Your task to perform on an android device: Find coffee shops on Maps Image 0: 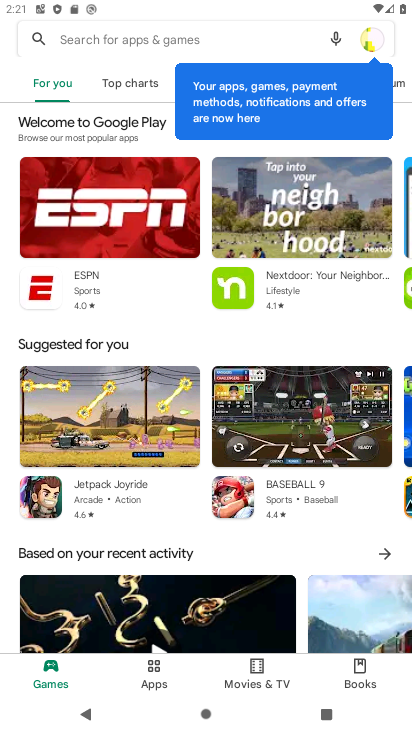
Step 0: press home button
Your task to perform on an android device: Find coffee shops on Maps Image 1: 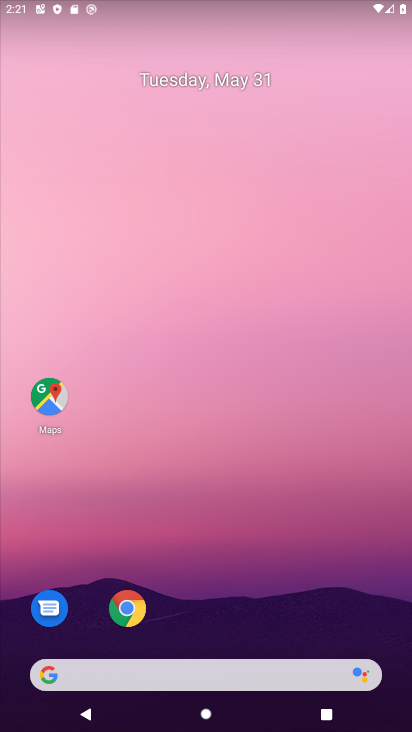
Step 1: click (47, 391)
Your task to perform on an android device: Find coffee shops on Maps Image 2: 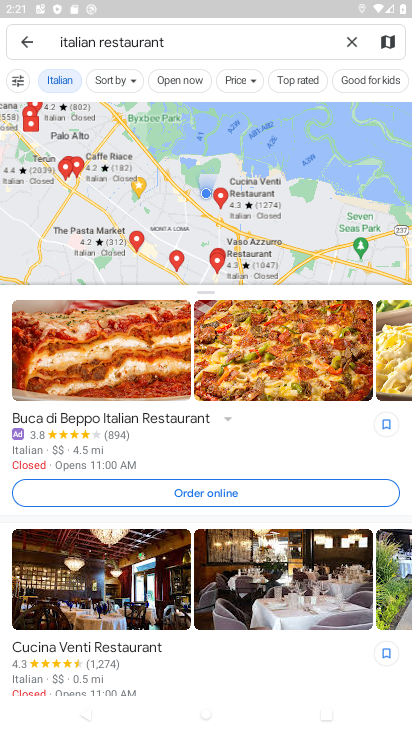
Step 2: click (351, 41)
Your task to perform on an android device: Find coffee shops on Maps Image 3: 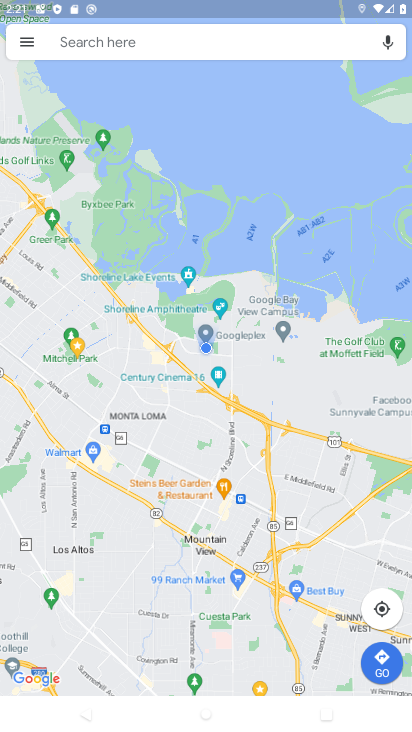
Step 3: click (143, 47)
Your task to perform on an android device: Find coffee shops on Maps Image 4: 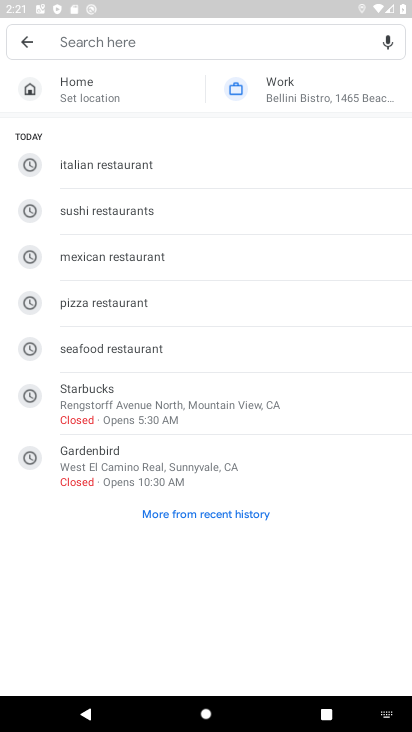
Step 4: type "coffee shops"
Your task to perform on an android device: Find coffee shops on Maps Image 5: 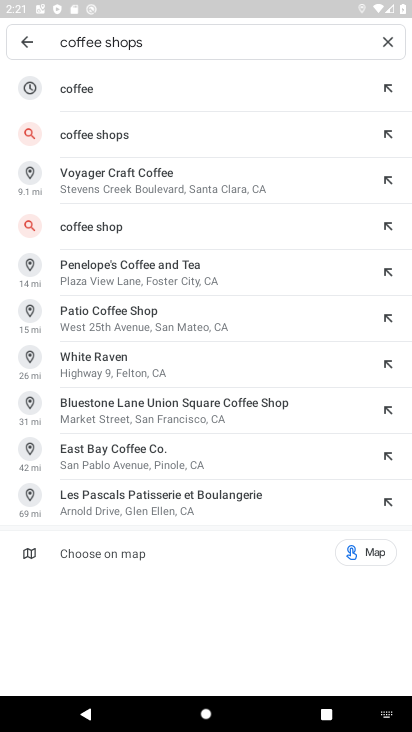
Step 5: click (117, 131)
Your task to perform on an android device: Find coffee shops on Maps Image 6: 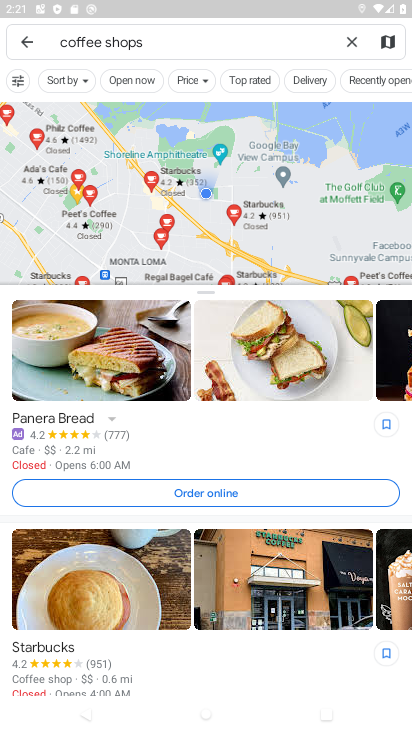
Step 6: task complete